Your task to perform on an android device: change your default location settings in chrome Image 0: 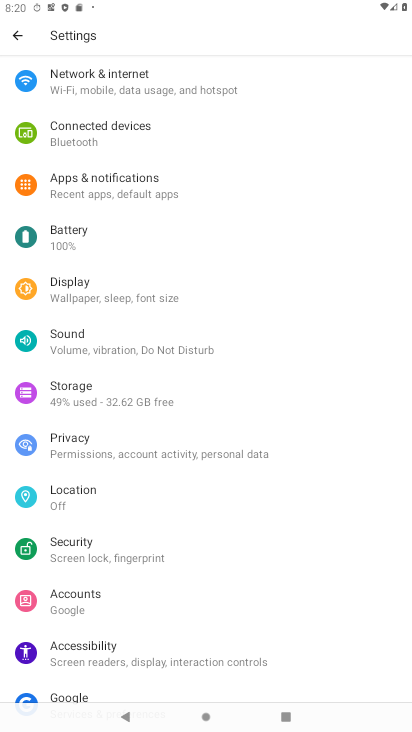
Step 0: press home button
Your task to perform on an android device: change your default location settings in chrome Image 1: 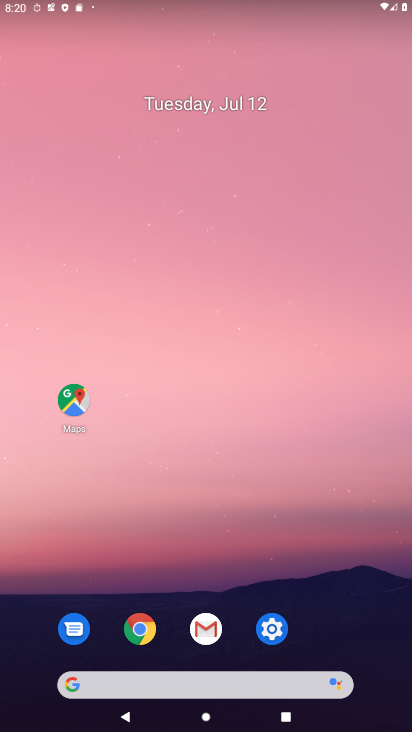
Step 1: drag from (267, 691) to (205, 249)
Your task to perform on an android device: change your default location settings in chrome Image 2: 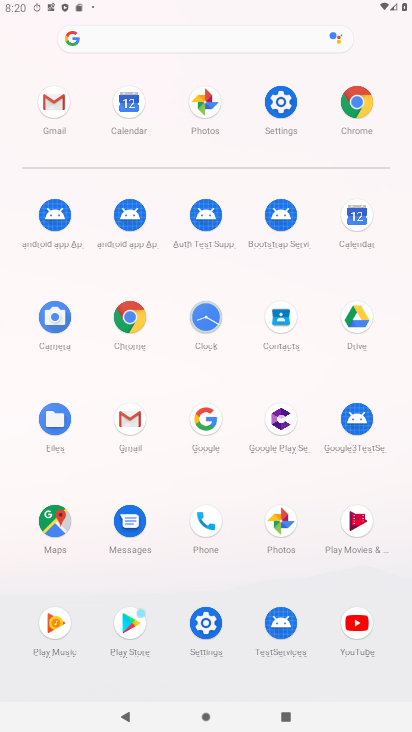
Step 2: click (126, 313)
Your task to perform on an android device: change your default location settings in chrome Image 3: 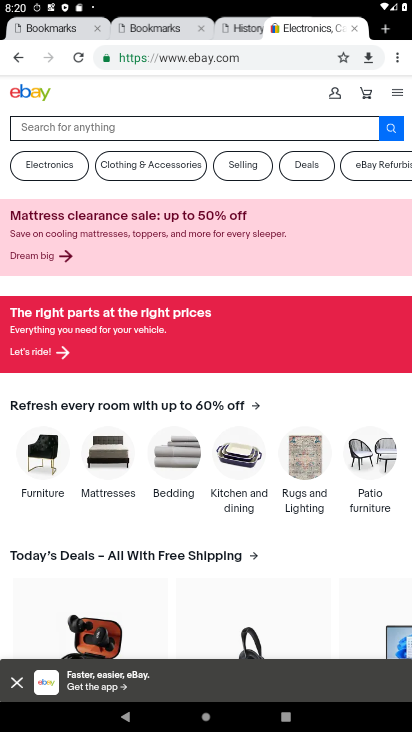
Step 3: click (398, 50)
Your task to perform on an android device: change your default location settings in chrome Image 4: 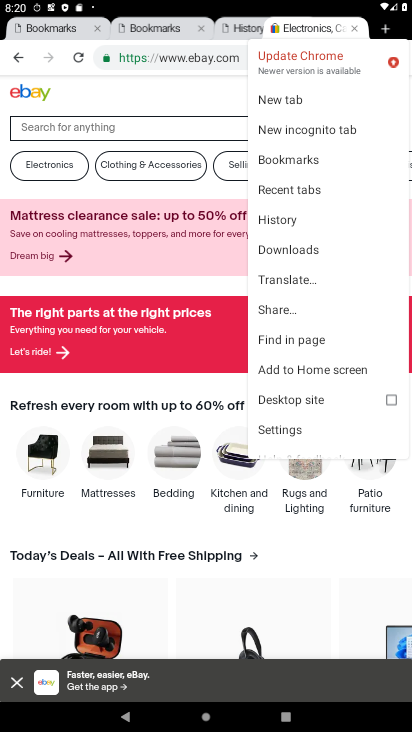
Step 4: click (280, 418)
Your task to perform on an android device: change your default location settings in chrome Image 5: 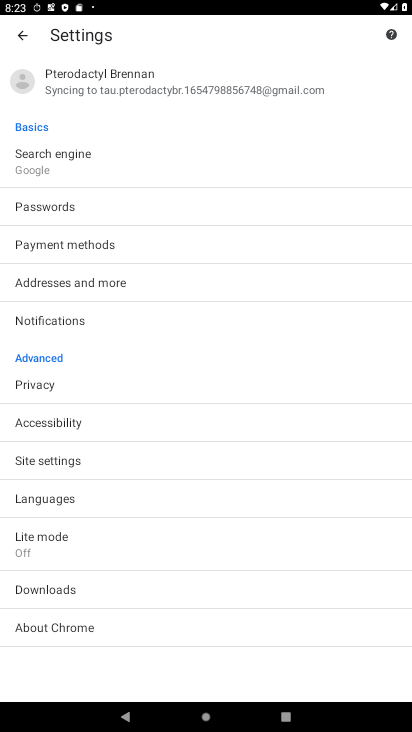
Step 5: task complete